Your task to perform on an android device: toggle show notifications on the lock screen Image 0: 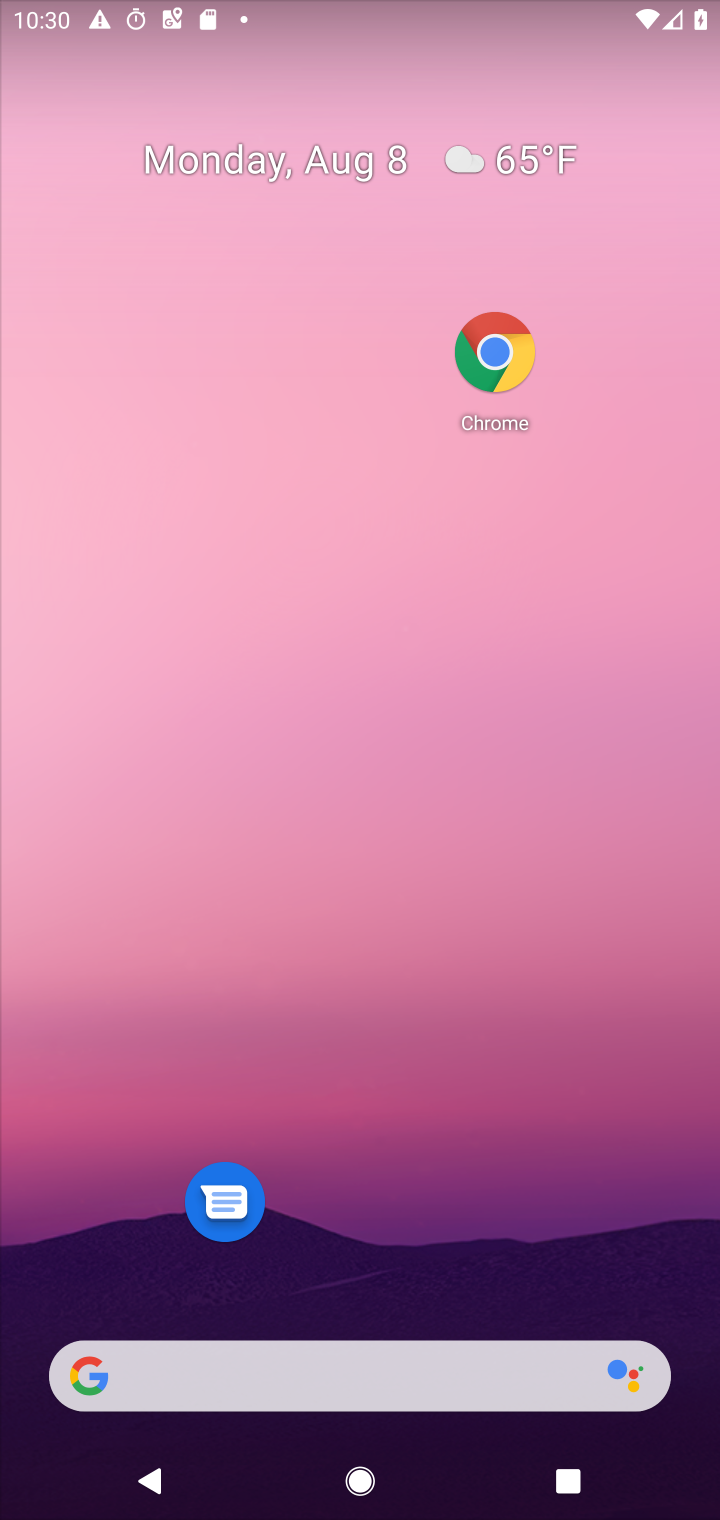
Step 0: drag from (305, 1431) to (599, 275)
Your task to perform on an android device: toggle show notifications on the lock screen Image 1: 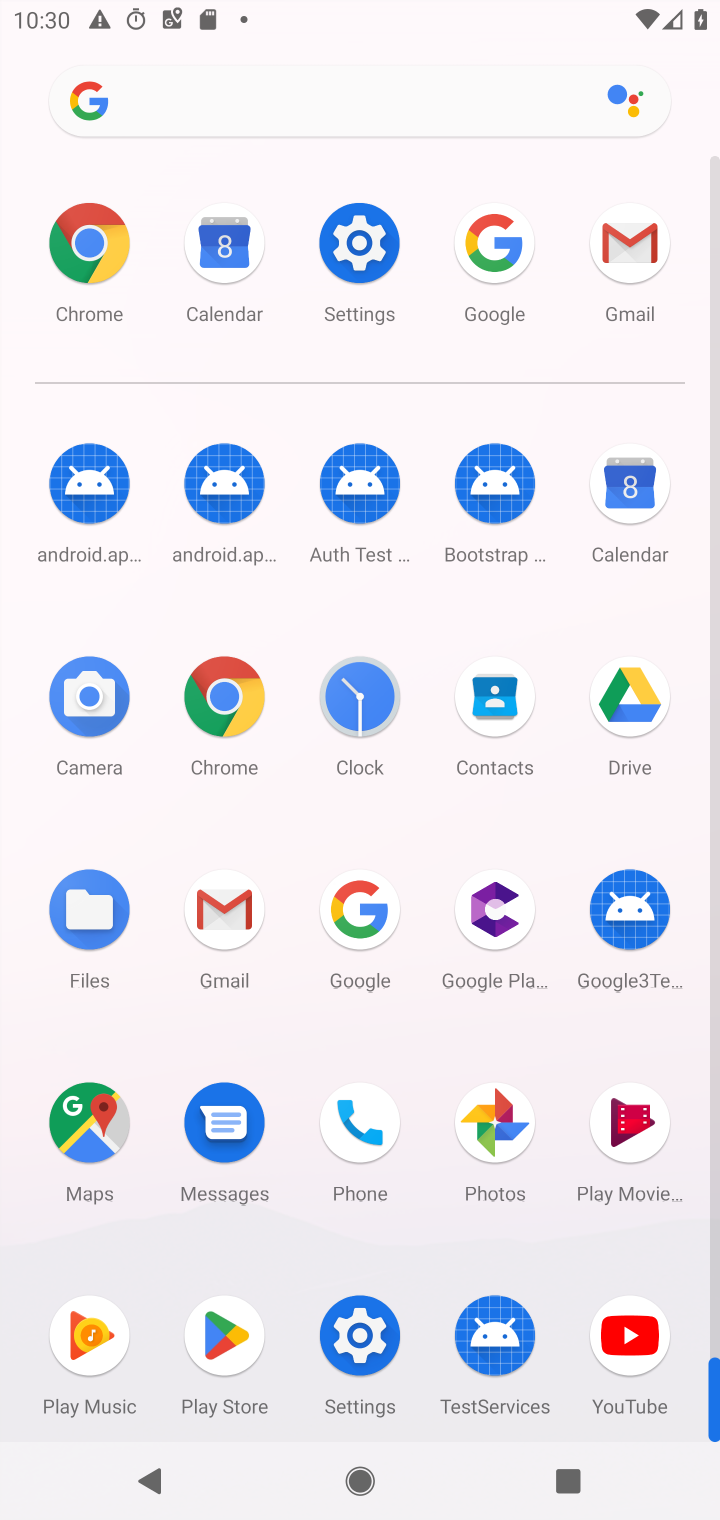
Step 1: click (374, 310)
Your task to perform on an android device: toggle show notifications on the lock screen Image 2: 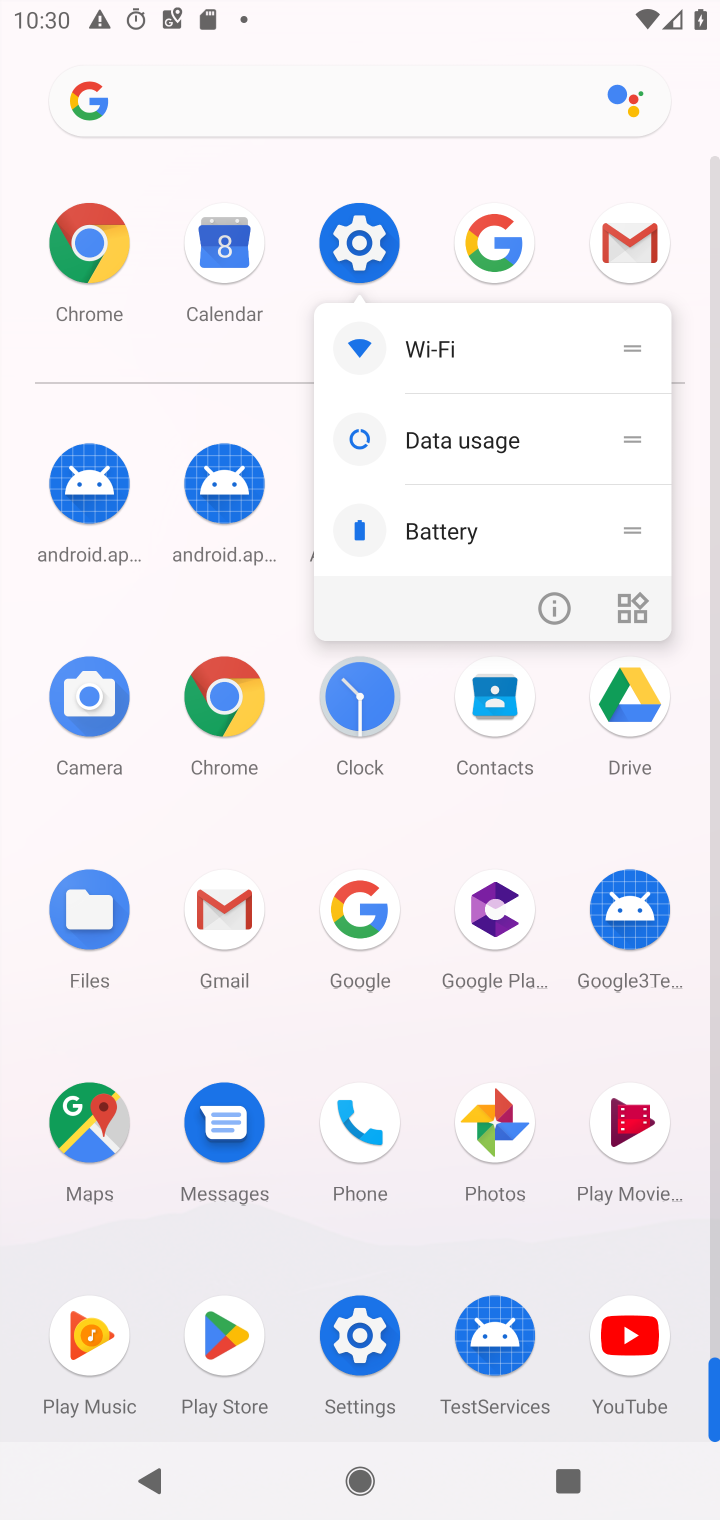
Step 2: click (363, 227)
Your task to perform on an android device: toggle show notifications on the lock screen Image 3: 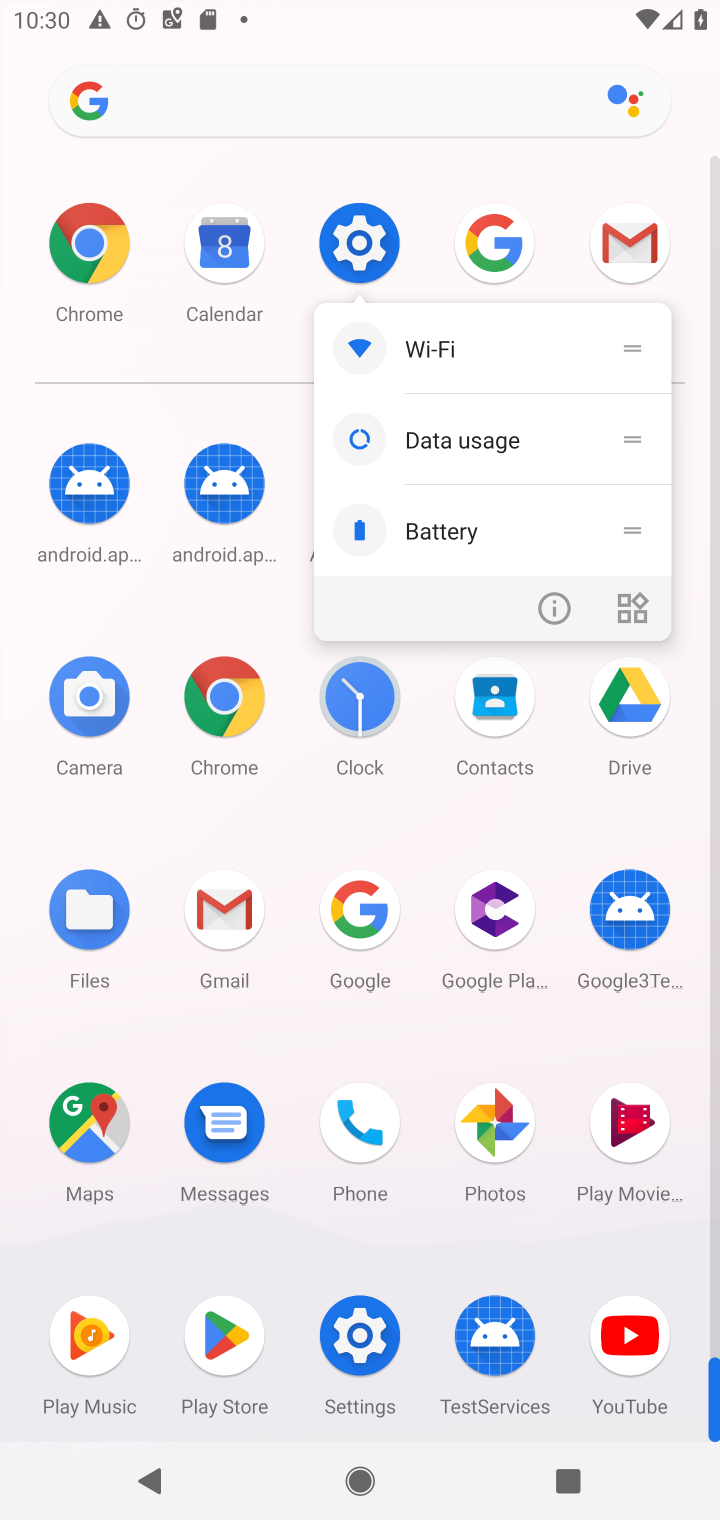
Step 3: click (363, 235)
Your task to perform on an android device: toggle show notifications on the lock screen Image 4: 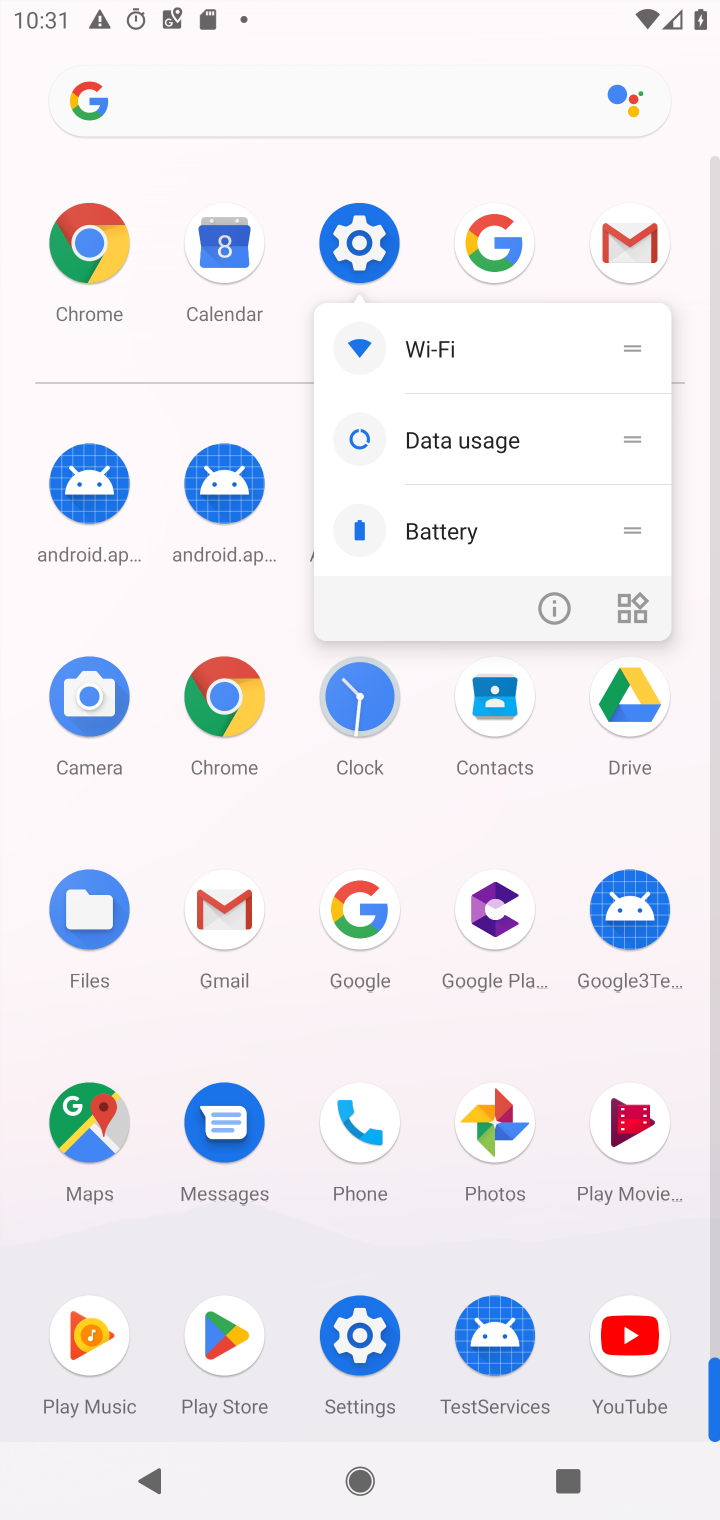
Step 4: click (363, 235)
Your task to perform on an android device: toggle show notifications on the lock screen Image 5: 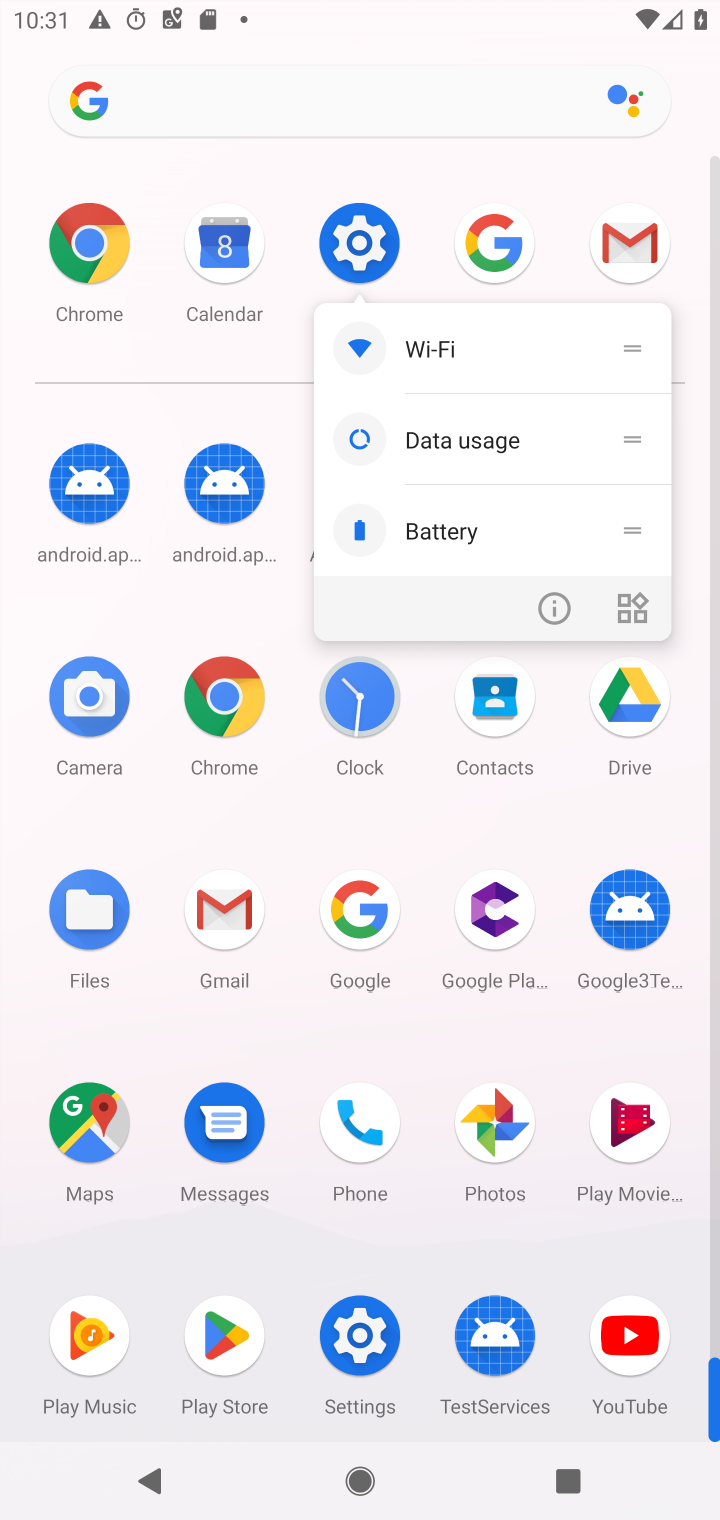
Step 5: click (361, 261)
Your task to perform on an android device: toggle show notifications on the lock screen Image 6: 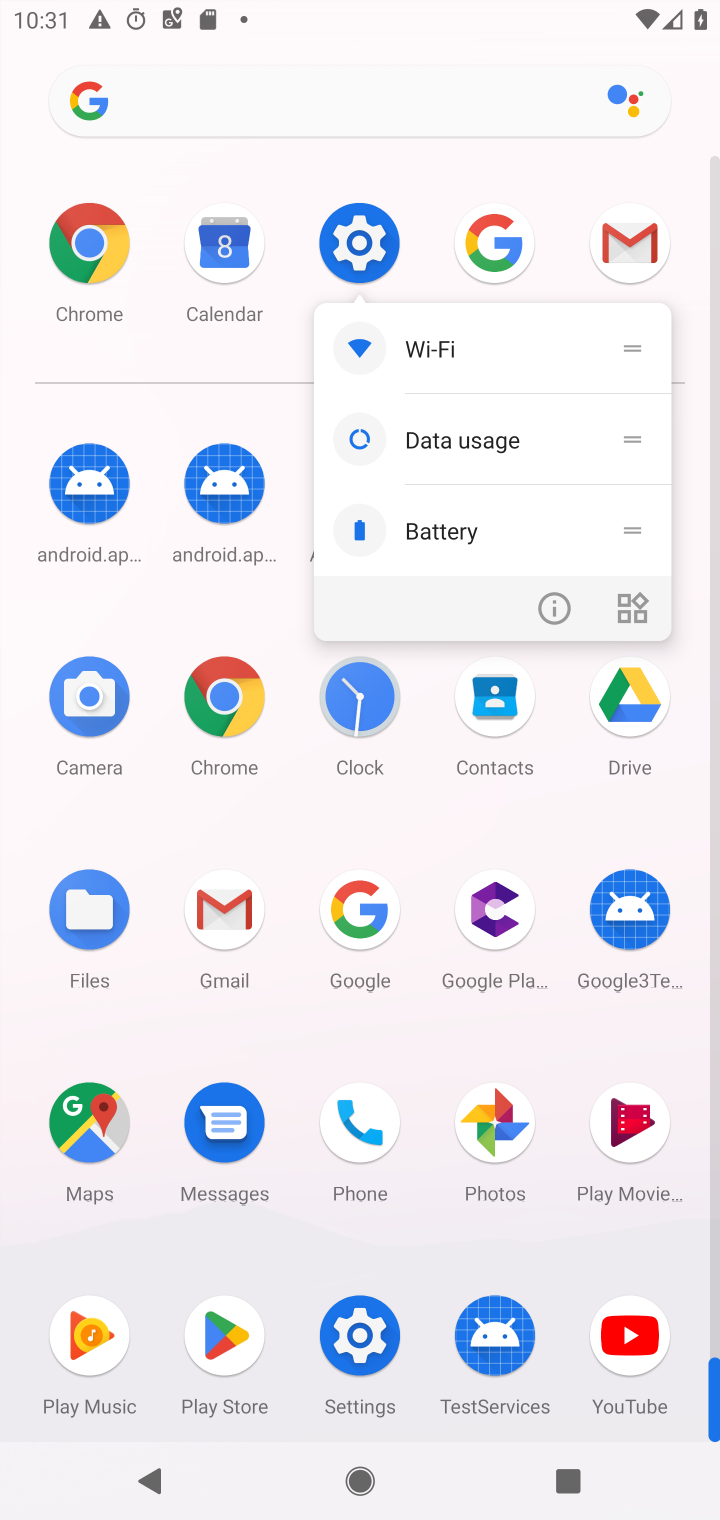
Step 6: click (363, 261)
Your task to perform on an android device: toggle show notifications on the lock screen Image 7: 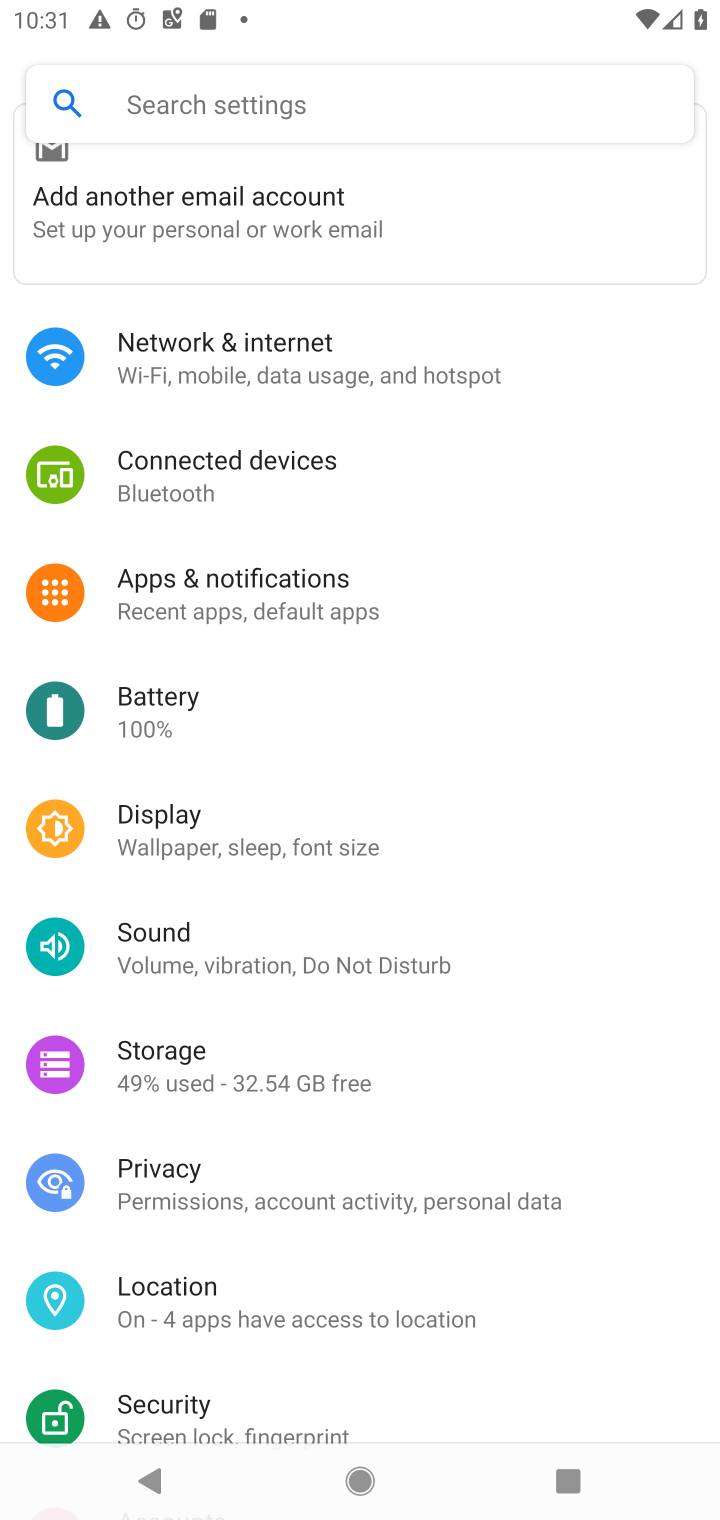
Step 7: click (284, 591)
Your task to perform on an android device: toggle show notifications on the lock screen Image 8: 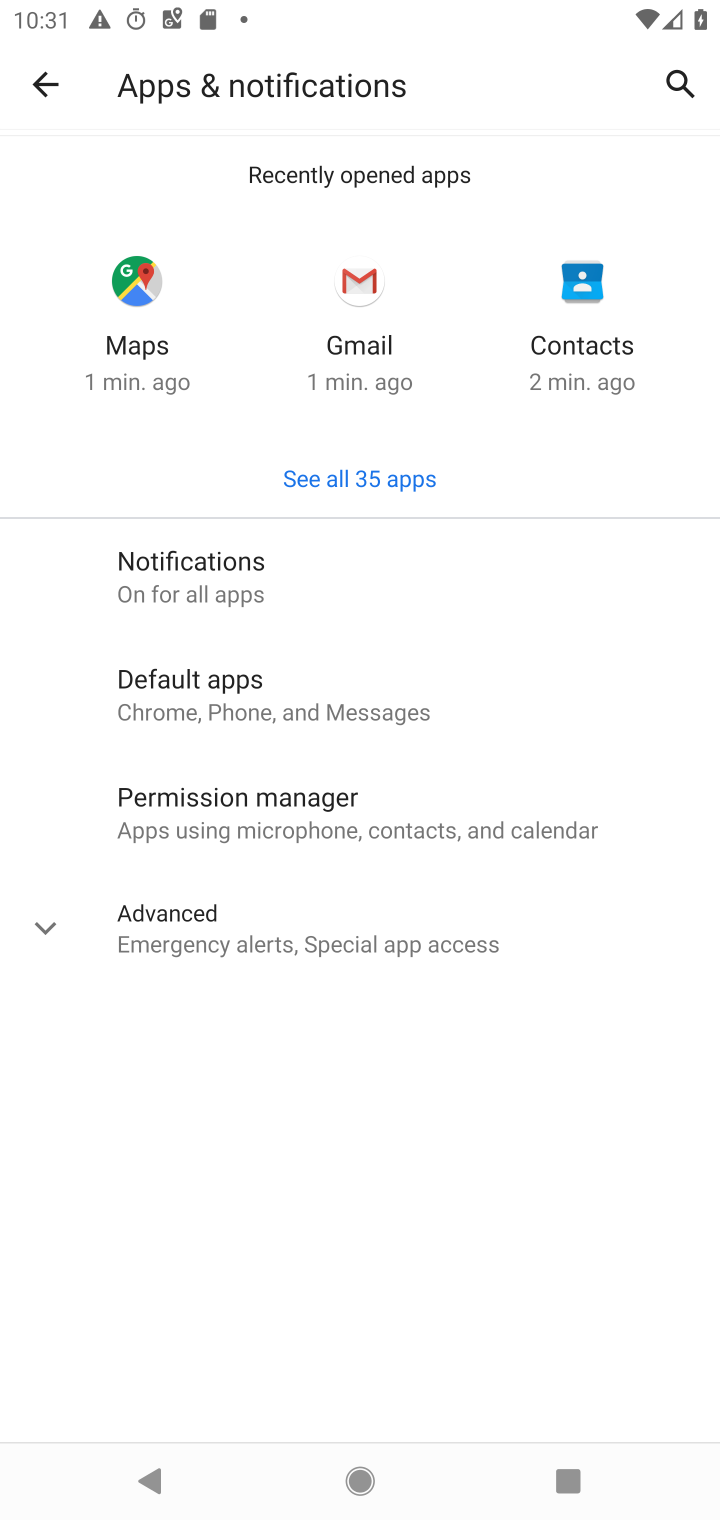
Step 8: click (291, 598)
Your task to perform on an android device: toggle show notifications on the lock screen Image 9: 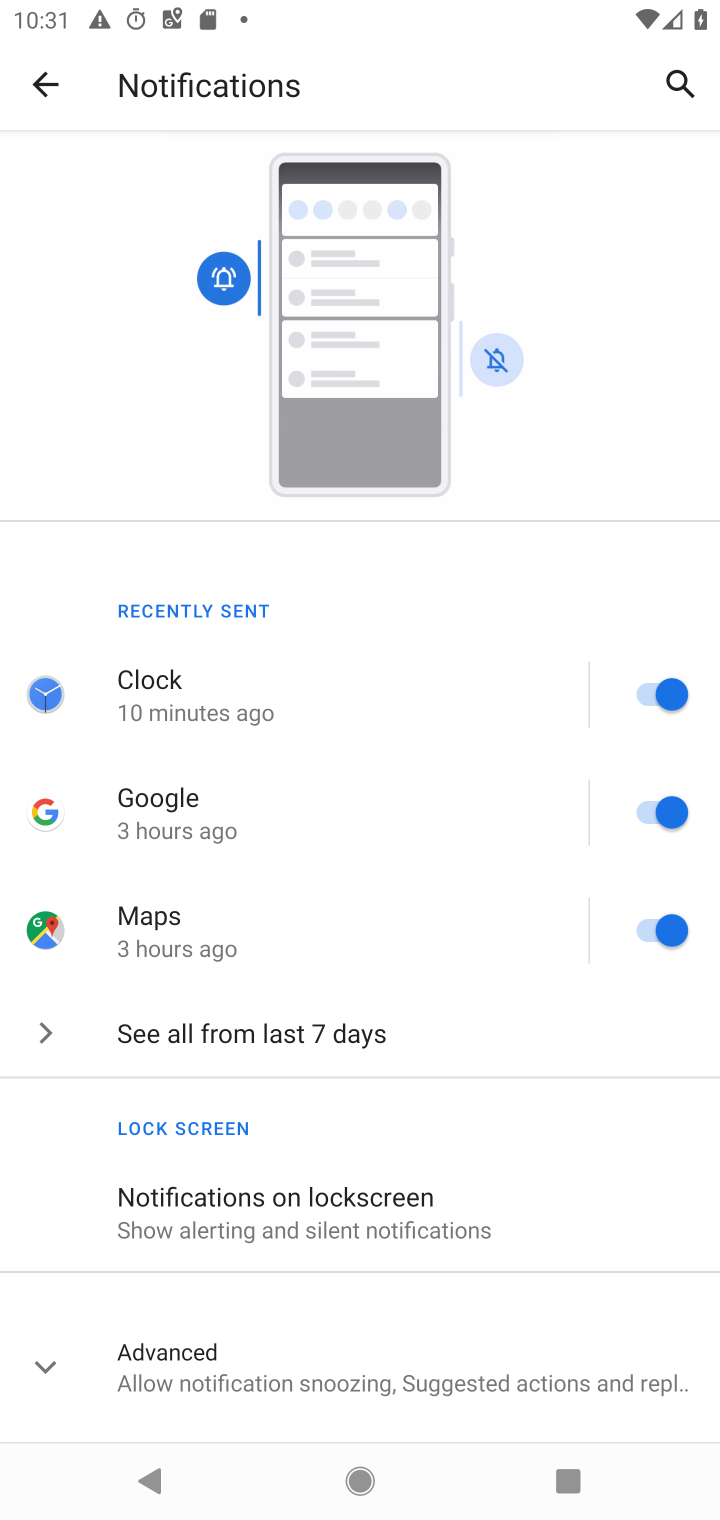
Step 9: click (309, 1225)
Your task to perform on an android device: toggle show notifications on the lock screen Image 10: 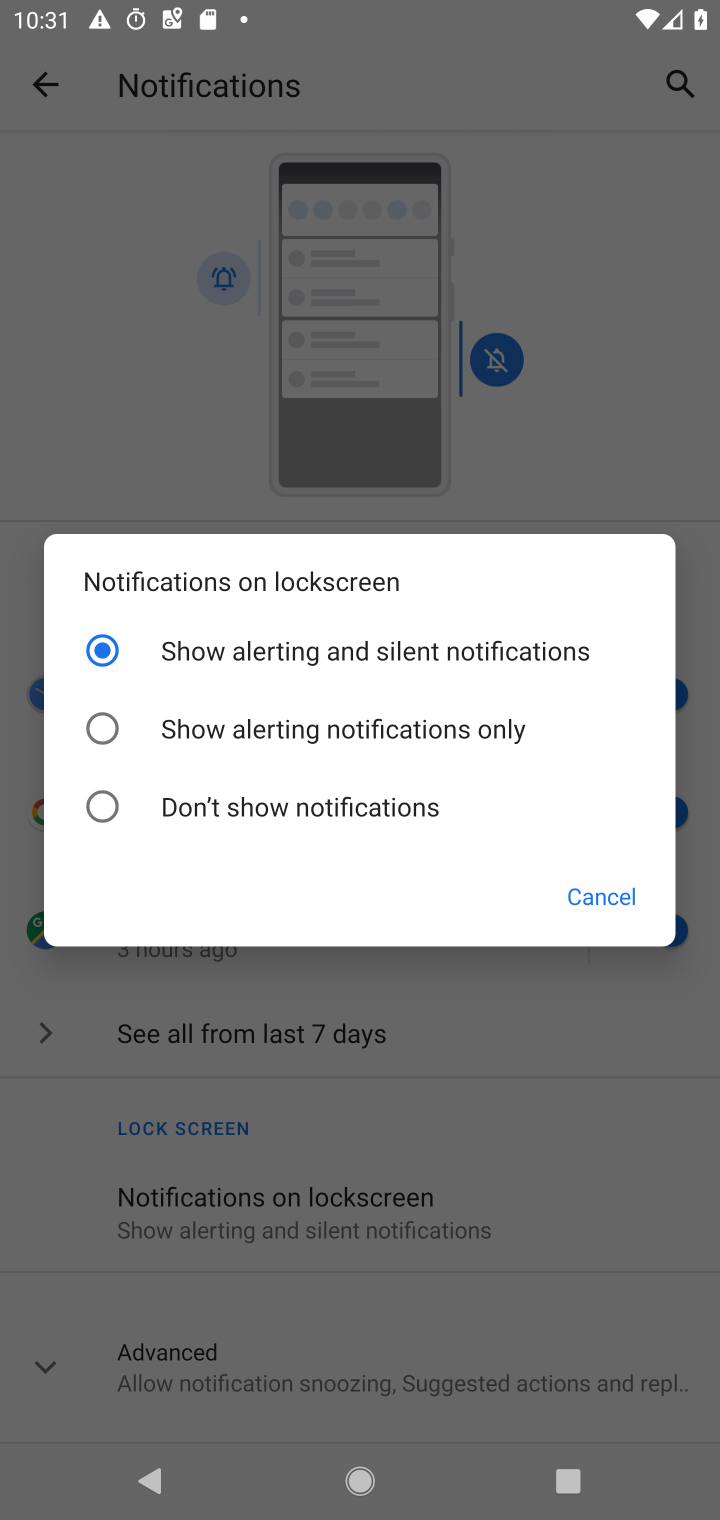
Step 10: click (331, 812)
Your task to perform on an android device: toggle show notifications on the lock screen Image 11: 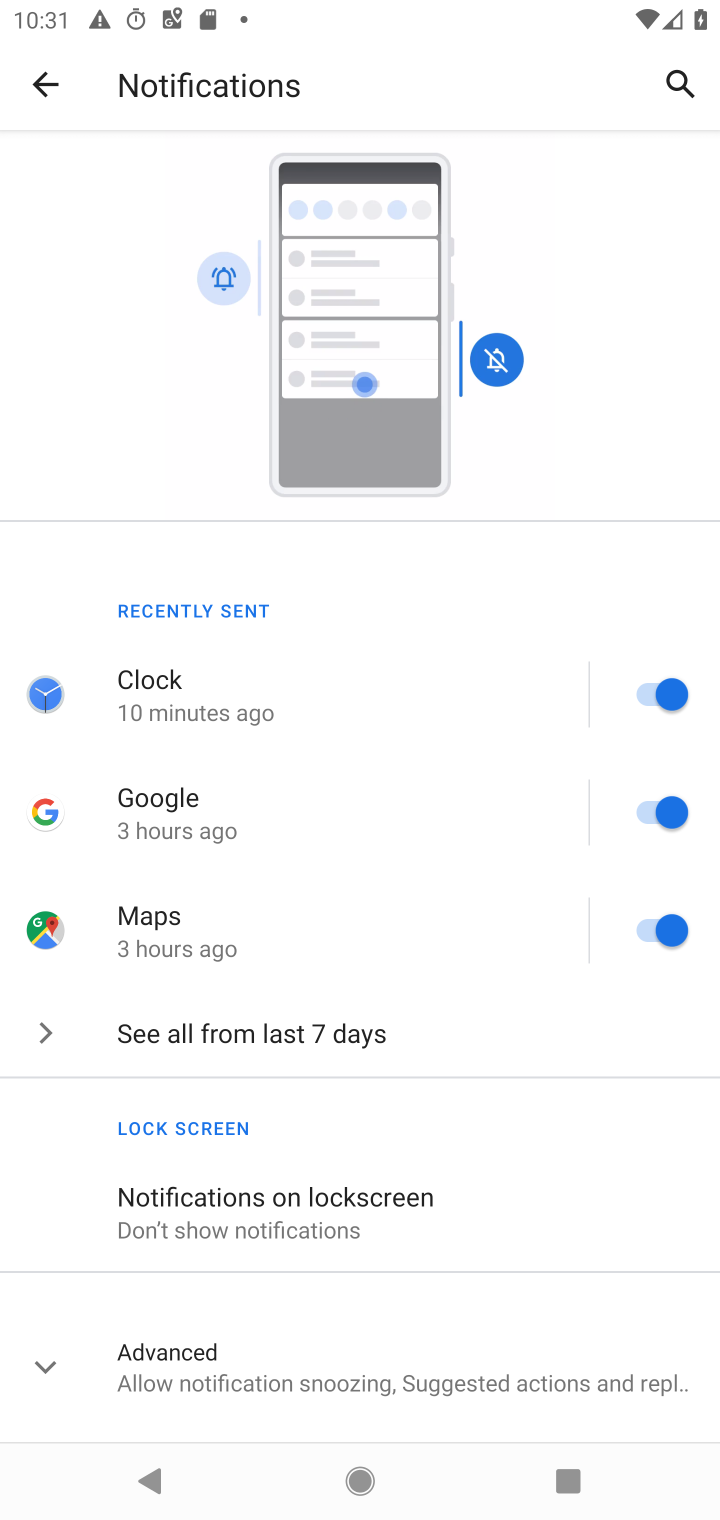
Step 11: task complete